Your task to perform on an android device: choose inbox layout in the gmail app Image 0: 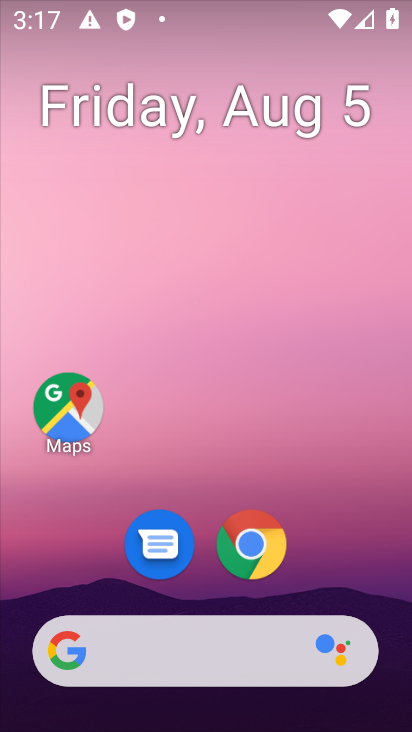
Step 0: drag from (159, 607) to (171, 172)
Your task to perform on an android device: choose inbox layout in the gmail app Image 1: 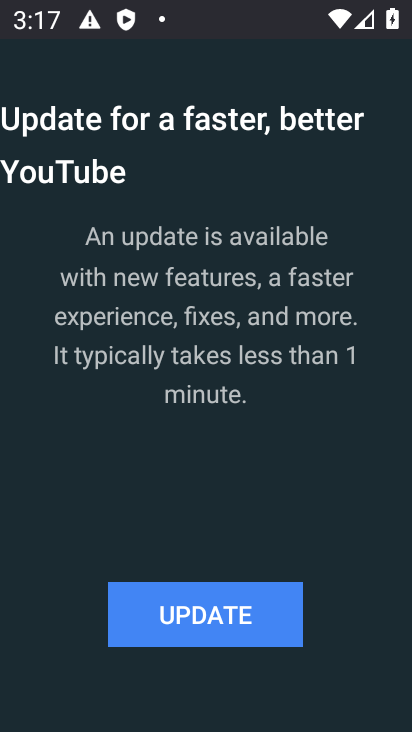
Step 1: press home button
Your task to perform on an android device: choose inbox layout in the gmail app Image 2: 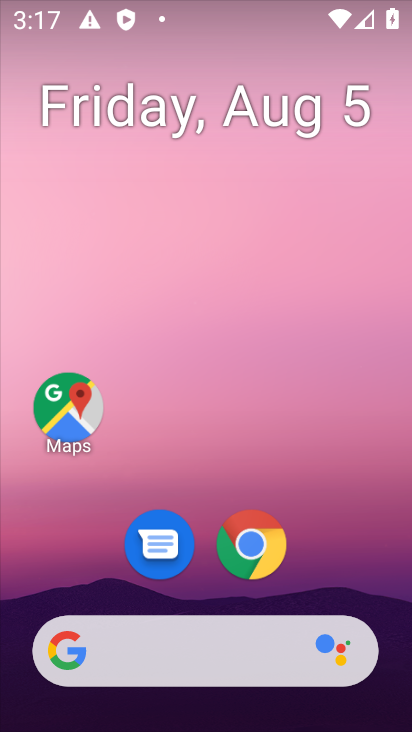
Step 2: drag from (193, 614) to (192, 163)
Your task to perform on an android device: choose inbox layout in the gmail app Image 3: 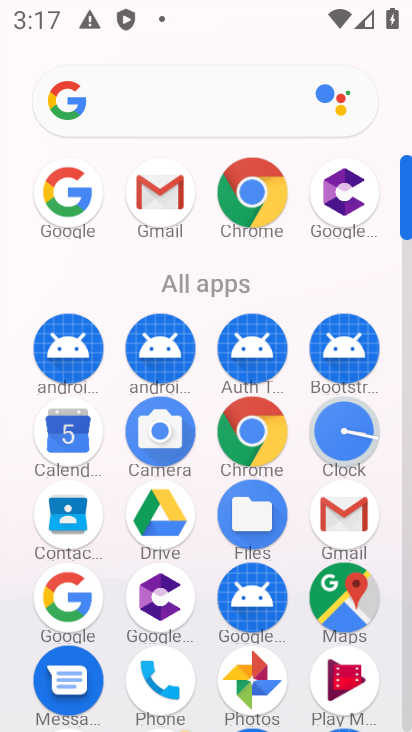
Step 3: click (156, 193)
Your task to perform on an android device: choose inbox layout in the gmail app Image 4: 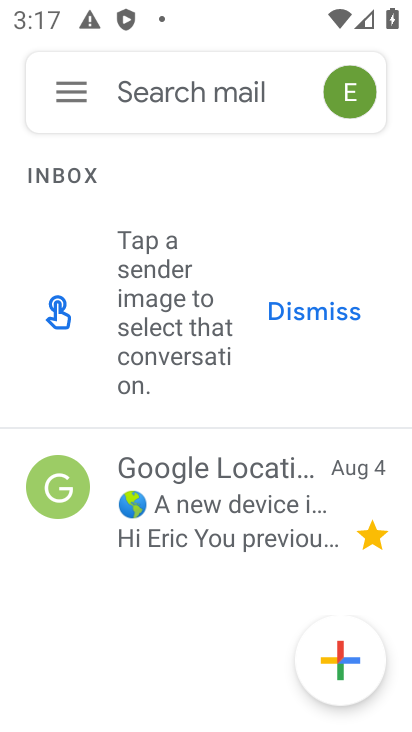
Step 4: click (70, 88)
Your task to perform on an android device: choose inbox layout in the gmail app Image 5: 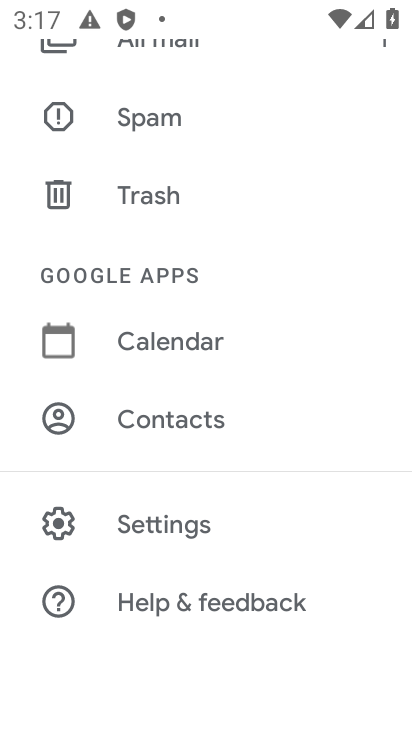
Step 5: click (146, 522)
Your task to perform on an android device: choose inbox layout in the gmail app Image 6: 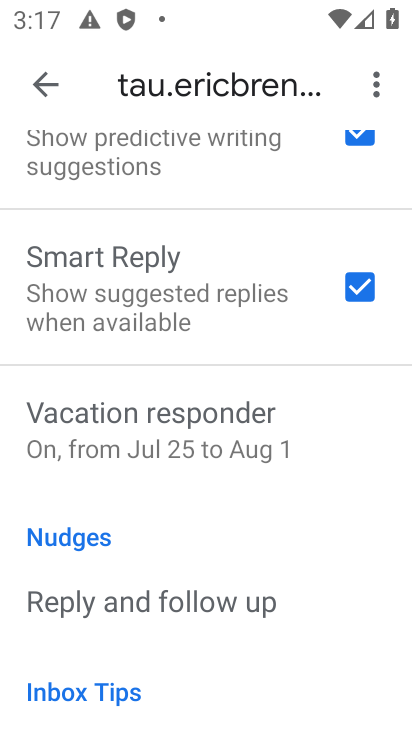
Step 6: drag from (167, 177) to (167, 606)
Your task to perform on an android device: choose inbox layout in the gmail app Image 7: 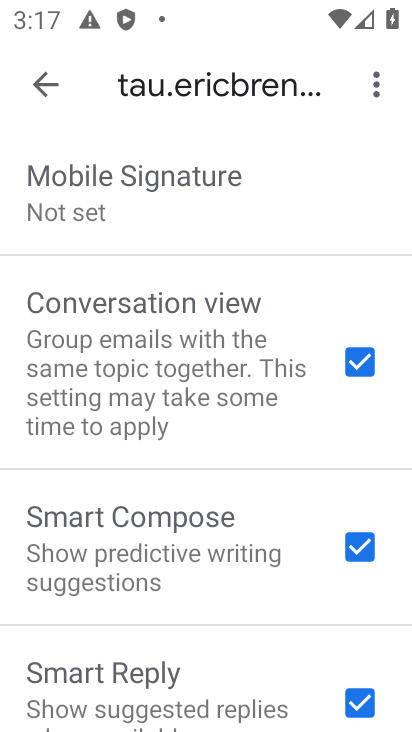
Step 7: drag from (150, 204) to (165, 580)
Your task to perform on an android device: choose inbox layout in the gmail app Image 8: 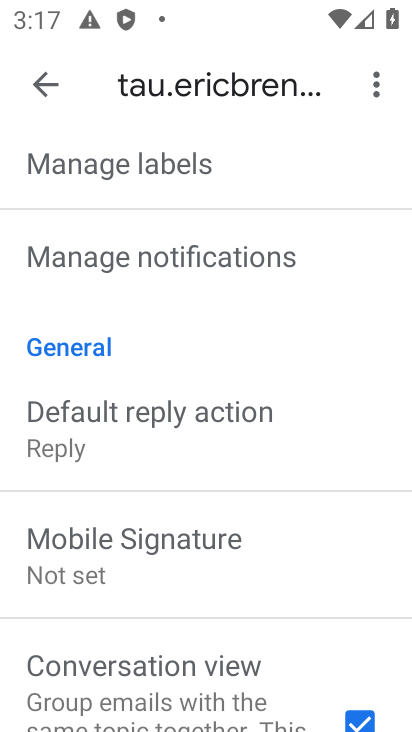
Step 8: drag from (132, 219) to (144, 554)
Your task to perform on an android device: choose inbox layout in the gmail app Image 9: 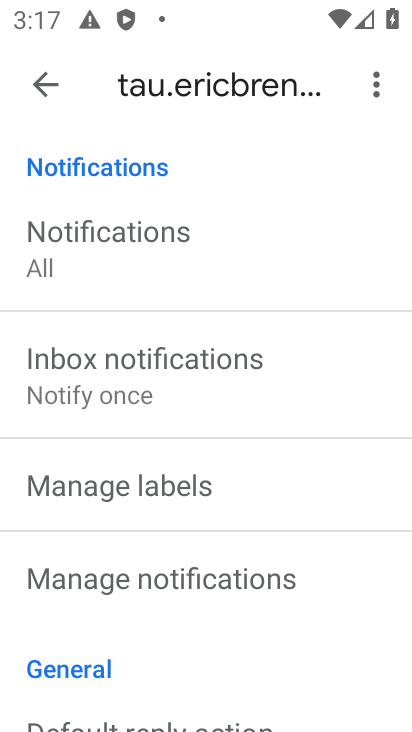
Step 9: drag from (91, 193) to (112, 573)
Your task to perform on an android device: choose inbox layout in the gmail app Image 10: 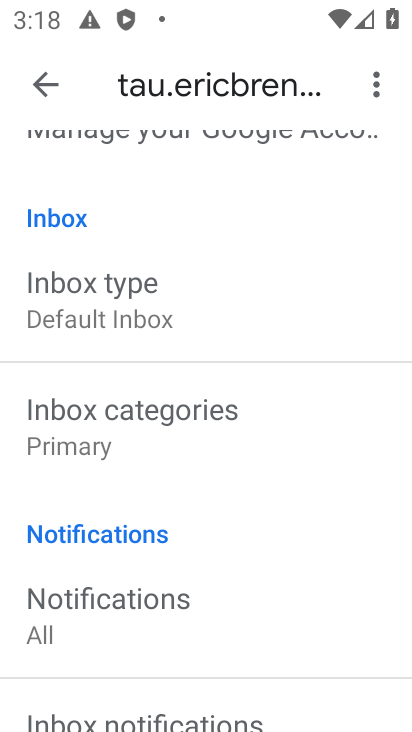
Step 10: click (120, 292)
Your task to perform on an android device: choose inbox layout in the gmail app Image 11: 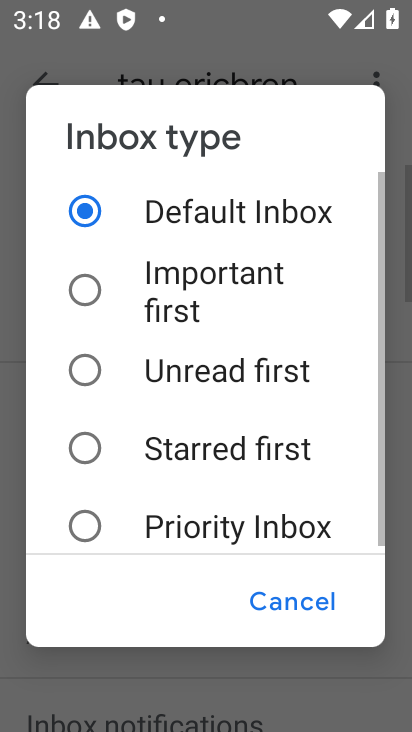
Step 11: click (196, 274)
Your task to perform on an android device: choose inbox layout in the gmail app Image 12: 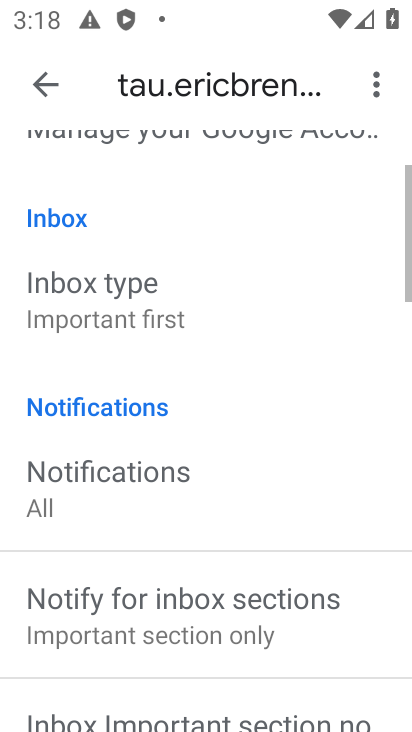
Step 12: task complete